Your task to perform on an android device: clear history in the chrome app Image 0: 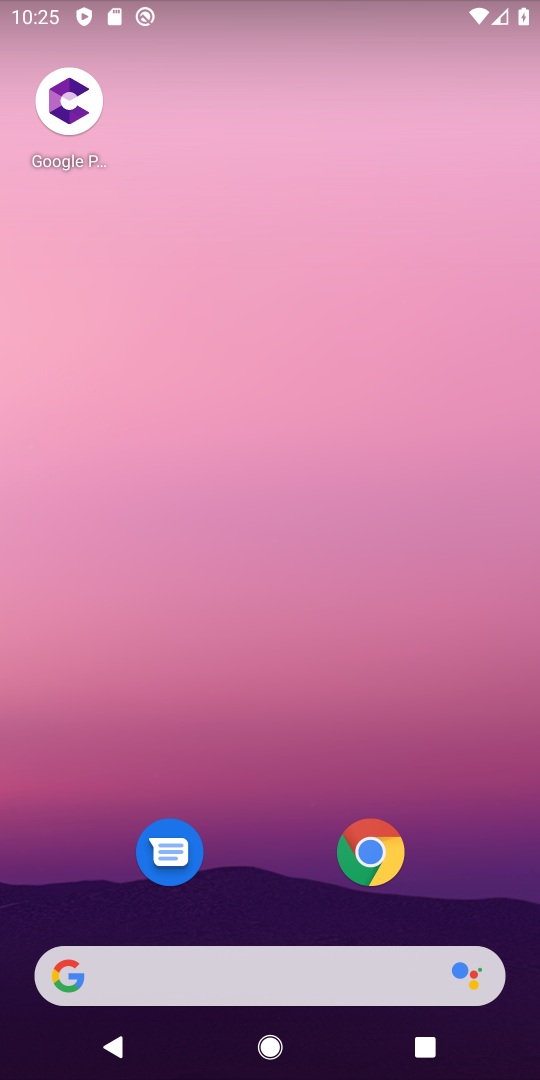
Step 0: click (375, 866)
Your task to perform on an android device: clear history in the chrome app Image 1: 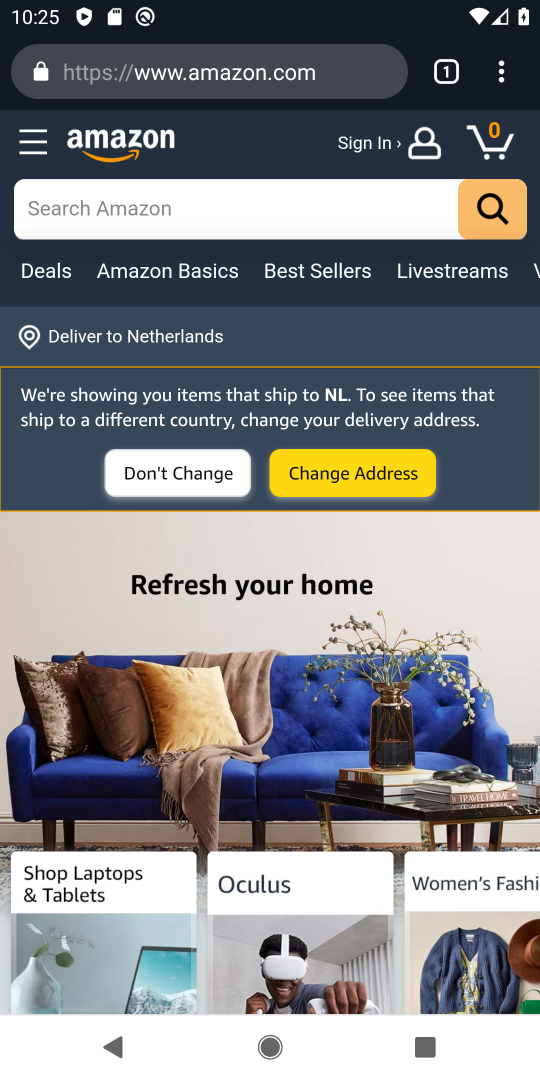
Step 1: click (373, 843)
Your task to perform on an android device: clear history in the chrome app Image 2: 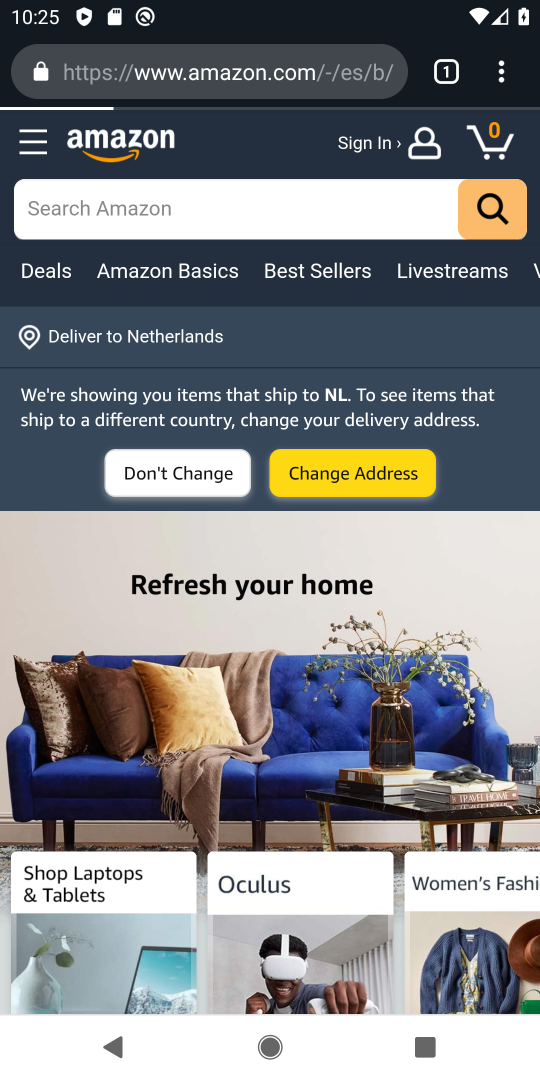
Step 2: click (517, 67)
Your task to perform on an android device: clear history in the chrome app Image 3: 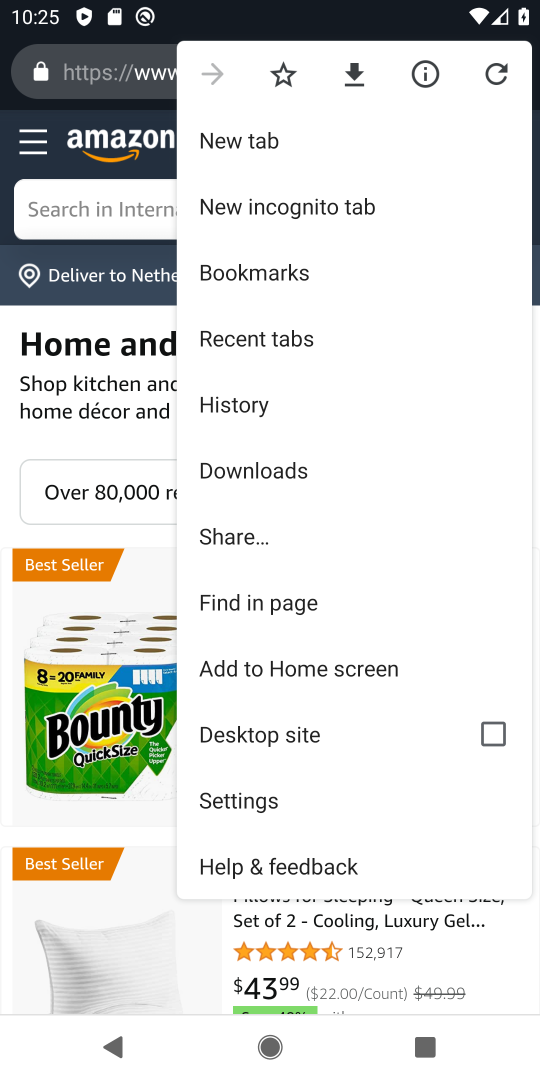
Step 3: click (292, 406)
Your task to perform on an android device: clear history in the chrome app Image 4: 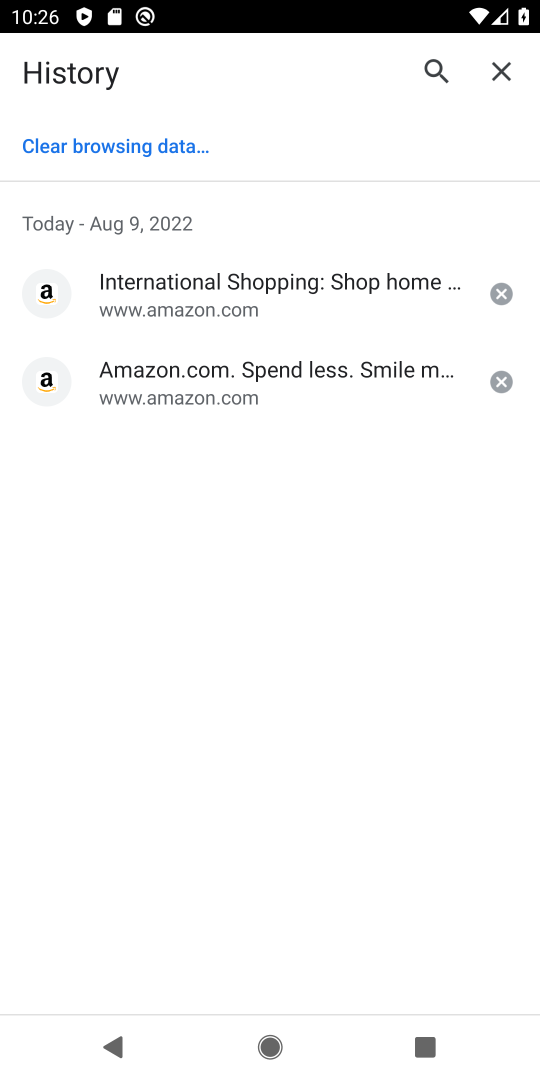
Step 4: click (157, 139)
Your task to perform on an android device: clear history in the chrome app Image 5: 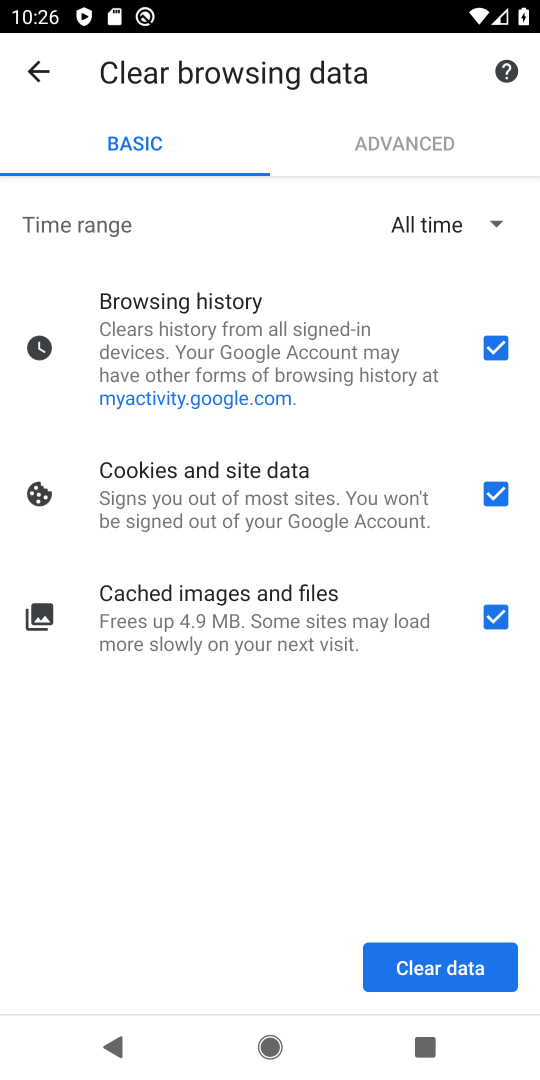
Step 5: click (492, 485)
Your task to perform on an android device: clear history in the chrome app Image 6: 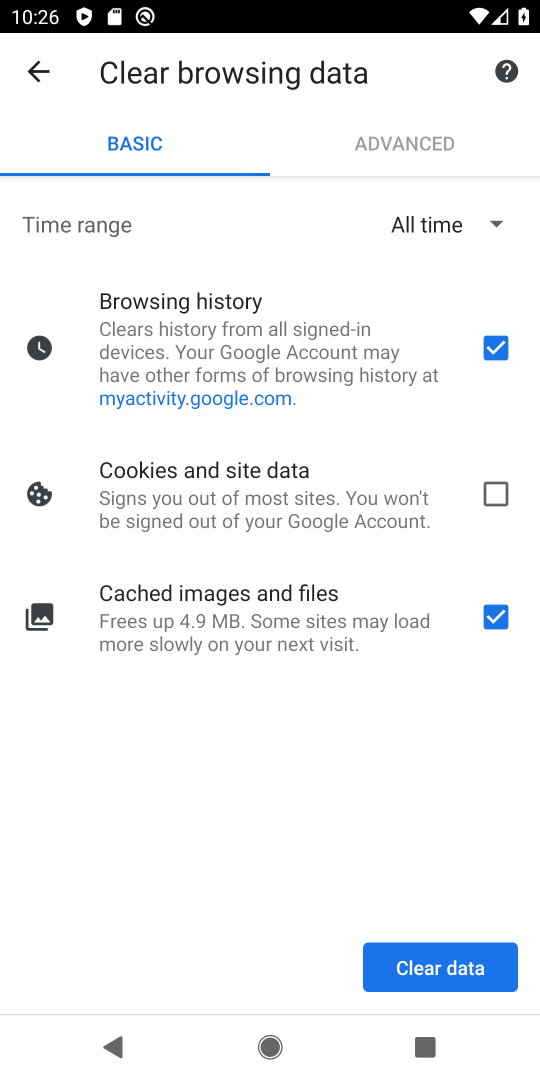
Step 6: click (497, 610)
Your task to perform on an android device: clear history in the chrome app Image 7: 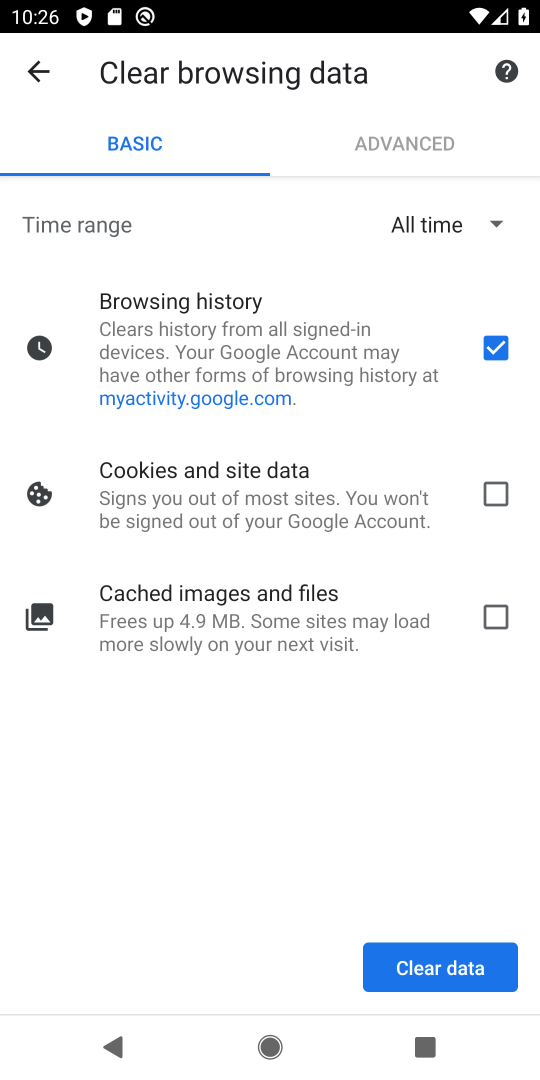
Step 7: click (395, 980)
Your task to perform on an android device: clear history in the chrome app Image 8: 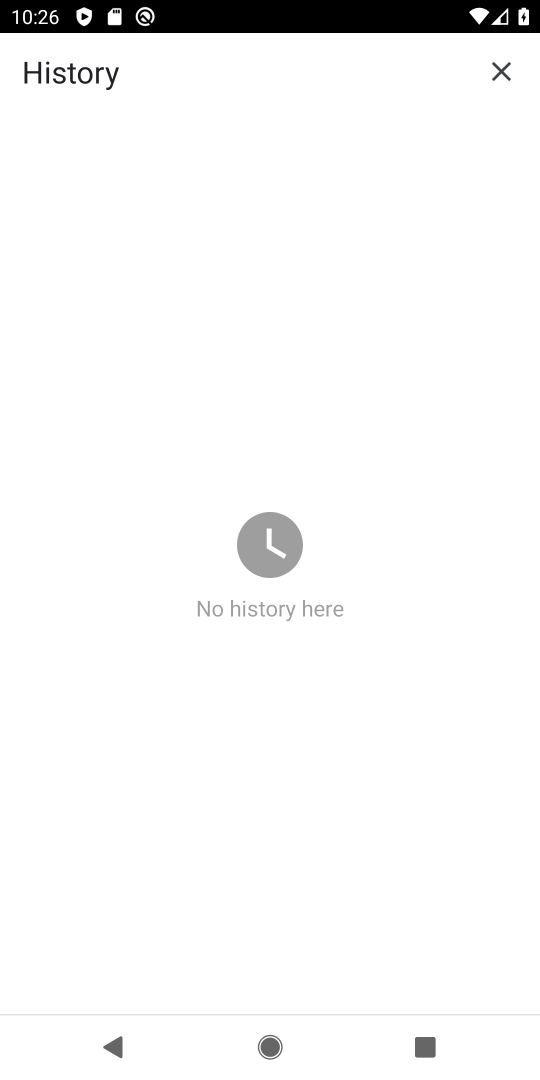
Step 8: click (433, 963)
Your task to perform on an android device: clear history in the chrome app Image 9: 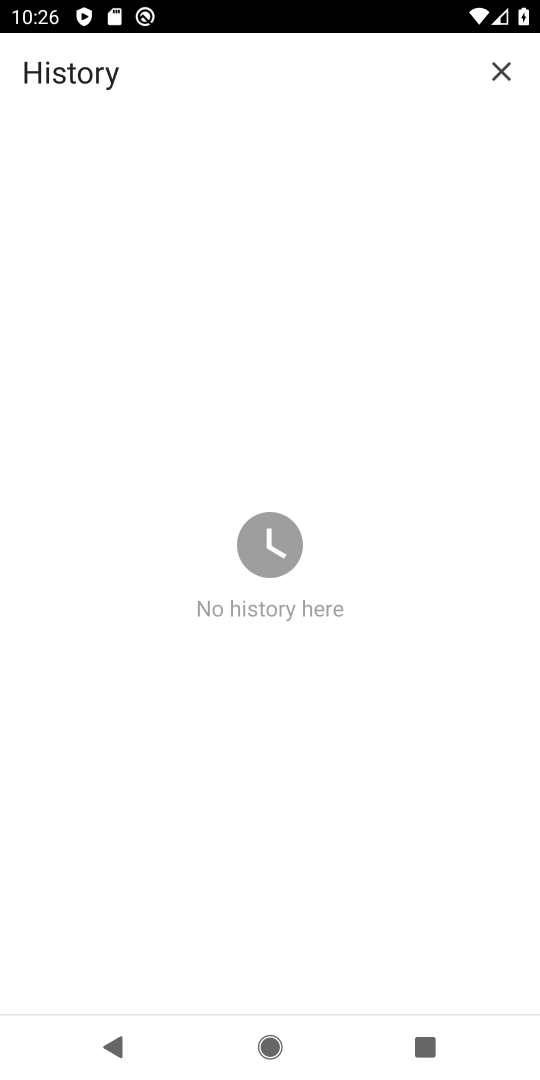
Step 9: task complete